Your task to perform on an android device: Open sound settings Image 0: 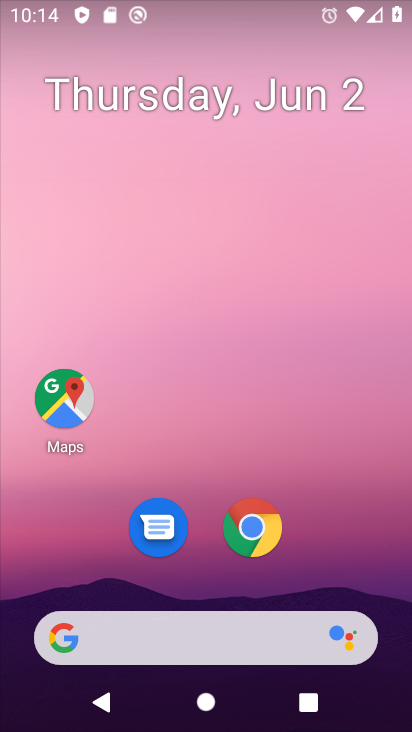
Step 0: drag from (173, 643) to (152, 326)
Your task to perform on an android device: Open sound settings Image 1: 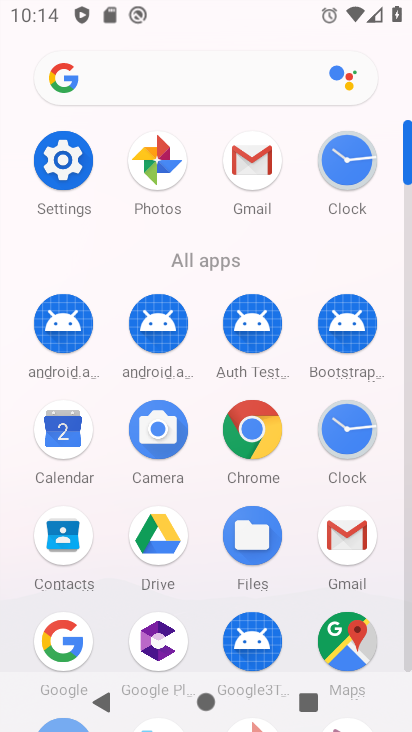
Step 1: click (59, 183)
Your task to perform on an android device: Open sound settings Image 2: 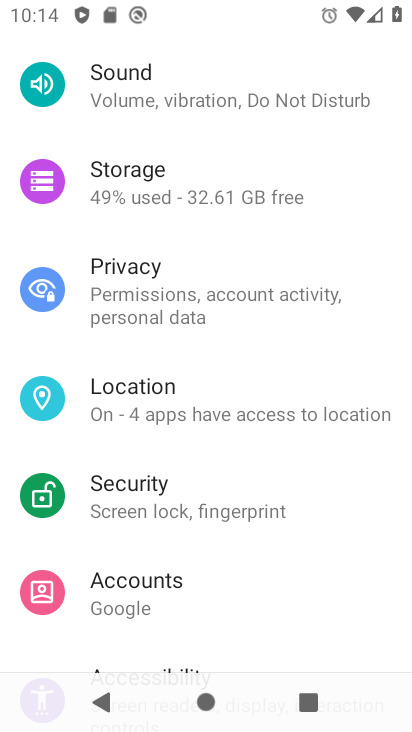
Step 2: click (120, 85)
Your task to perform on an android device: Open sound settings Image 3: 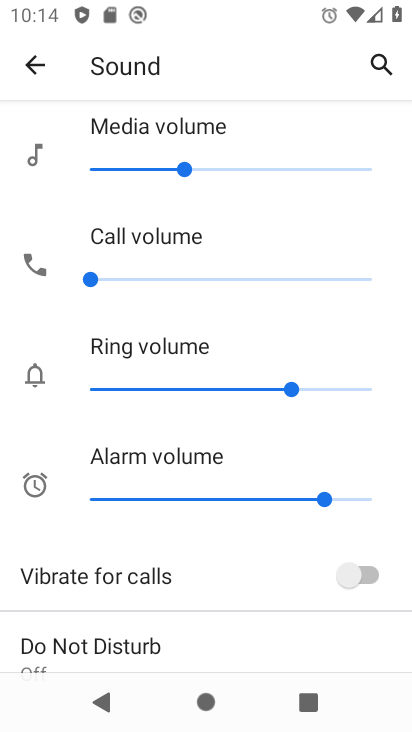
Step 3: task complete